Your task to perform on an android device: Show me recent news Image 0: 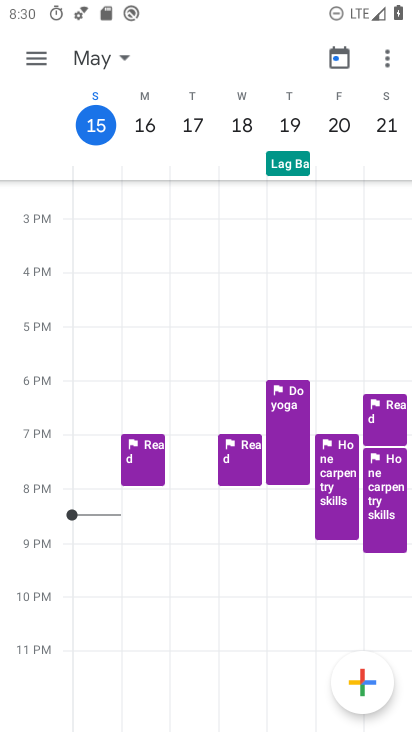
Step 0: press back button
Your task to perform on an android device: Show me recent news Image 1: 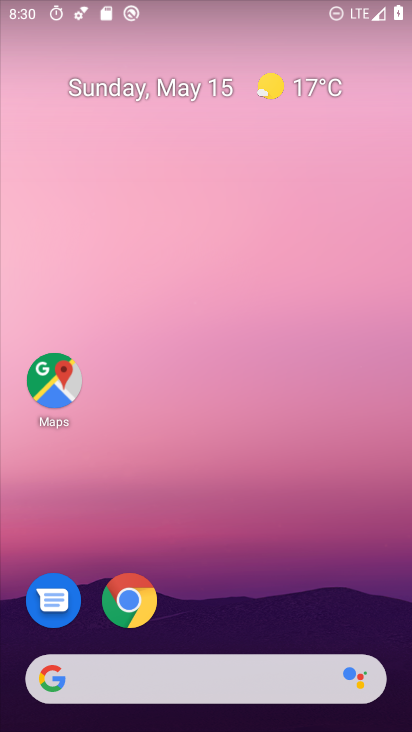
Step 1: drag from (223, 593) to (171, 91)
Your task to perform on an android device: Show me recent news Image 2: 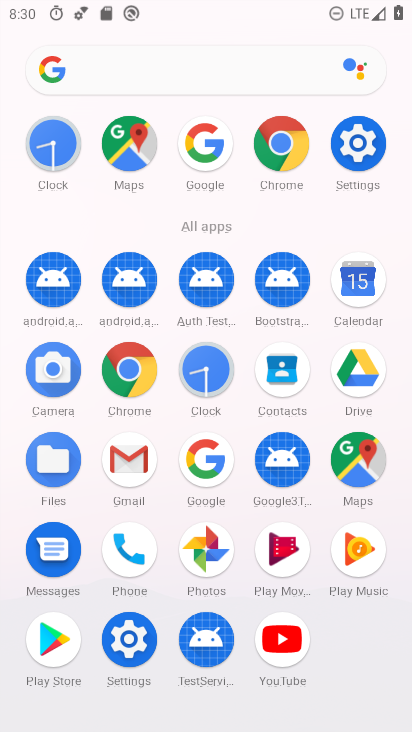
Step 2: click (201, 141)
Your task to perform on an android device: Show me recent news Image 3: 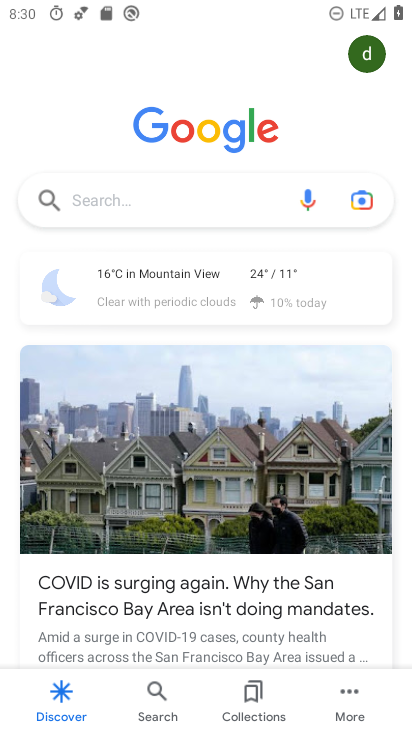
Step 3: click (154, 197)
Your task to perform on an android device: Show me recent news Image 4: 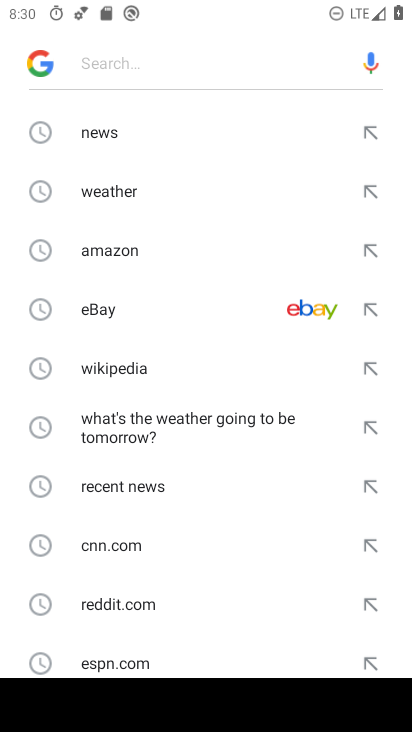
Step 4: type "recent news"
Your task to perform on an android device: Show me recent news Image 5: 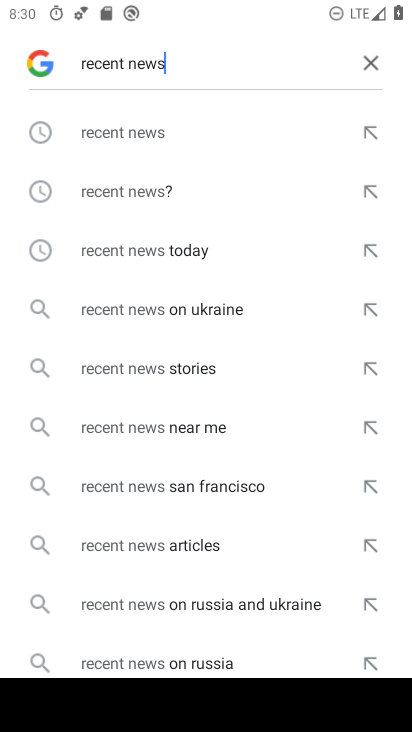
Step 5: click (100, 136)
Your task to perform on an android device: Show me recent news Image 6: 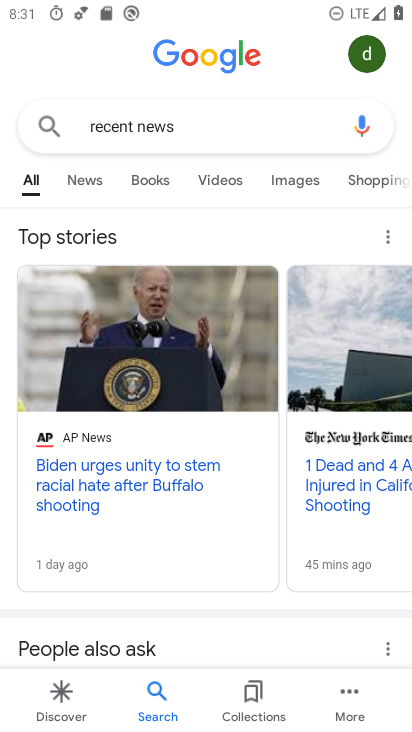
Step 6: task complete